Your task to perform on an android device: delete browsing data in the chrome app Image 0: 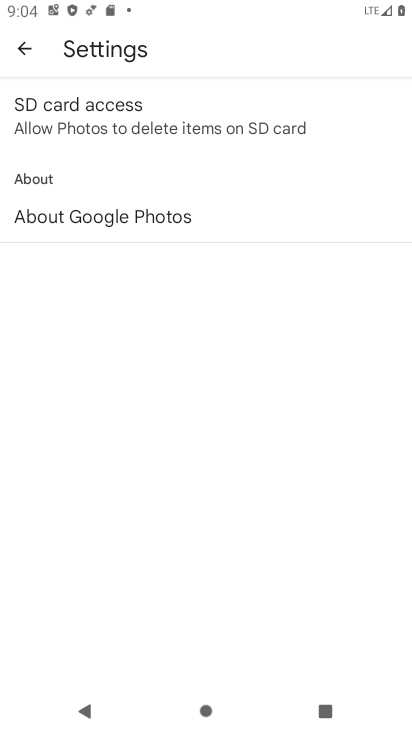
Step 0: press home button
Your task to perform on an android device: delete browsing data in the chrome app Image 1: 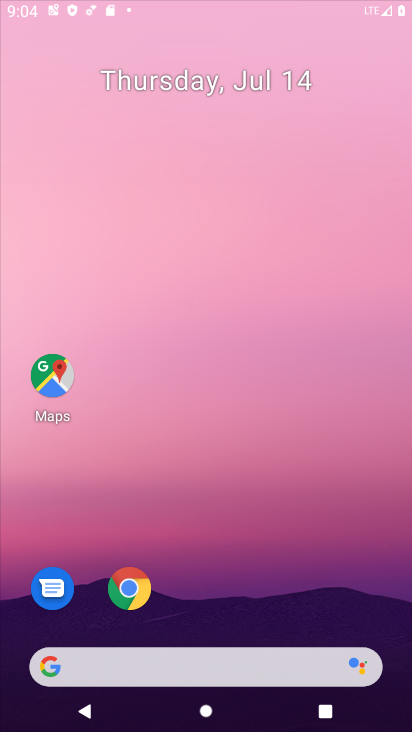
Step 1: drag from (381, 692) to (153, 25)
Your task to perform on an android device: delete browsing data in the chrome app Image 2: 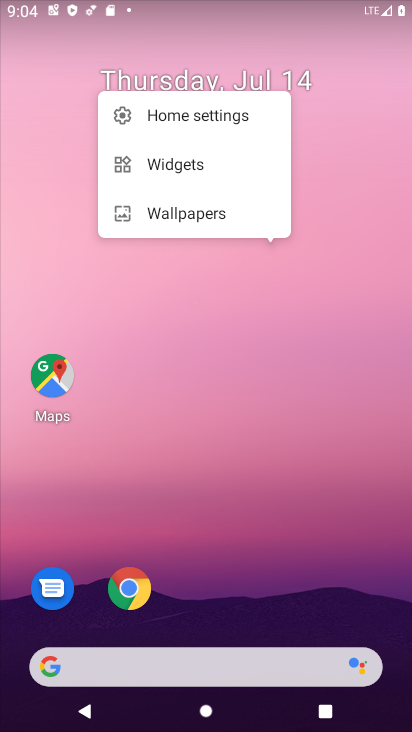
Step 2: click (187, 359)
Your task to perform on an android device: delete browsing data in the chrome app Image 3: 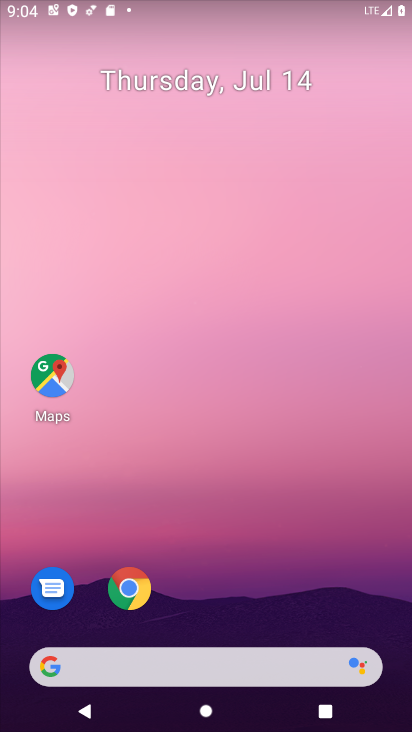
Step 3: drag from (397, 683) to (256, 18)
Your task to perform on an android device: delete browsing data in the chrome app Image 4: 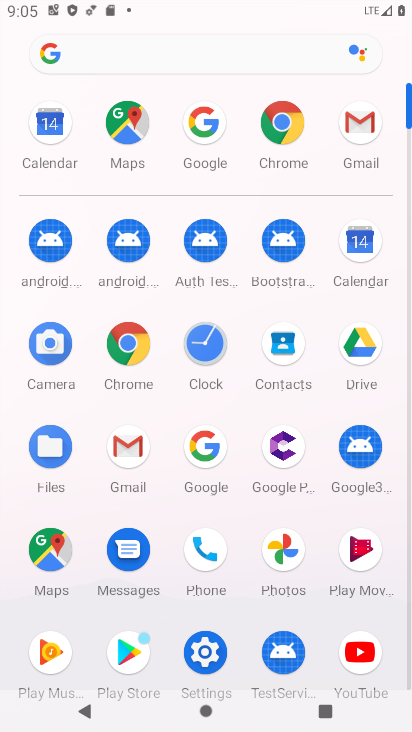
Step 4: click (267, 118)
Your task to perform on an android device: delete browsing data in the chrome app Image 5: 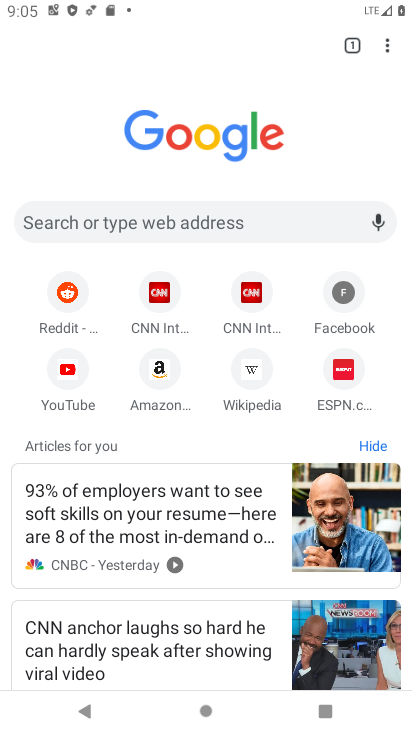
Step 5: click (379, 42)
Your task to perform on an android device: delete browsing data in the chrome app Image 6: 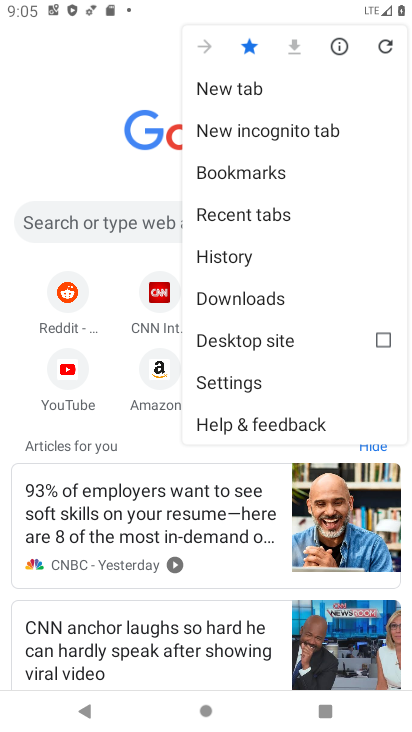
Step 6: click (265, 255)
Your task to perform on an android device: delete browsing data in the chrome app Image 7: 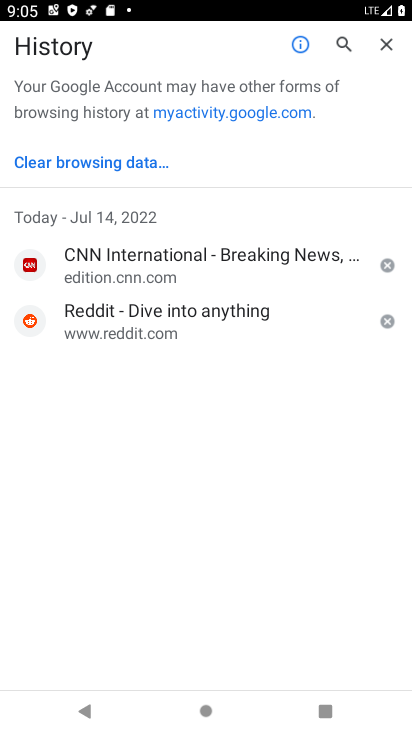
Step 7: click (77, 96)
Your task to perform on an android device: delete browsing data in the chrome app Image 8: 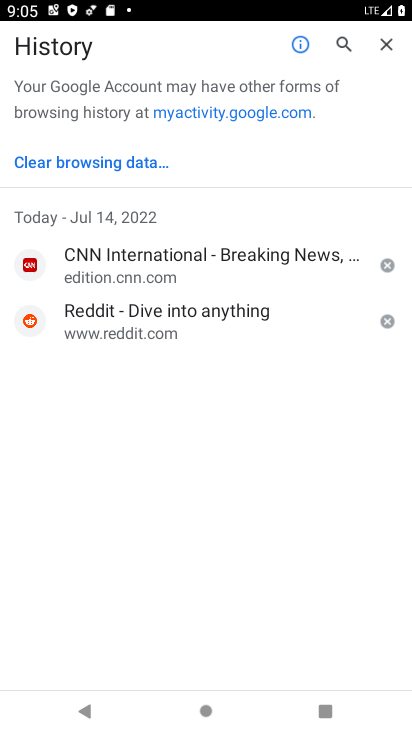
Step 8: click (106, 163)
Your task to perform on an android device: delete browsing data in the chrome app Image 9: 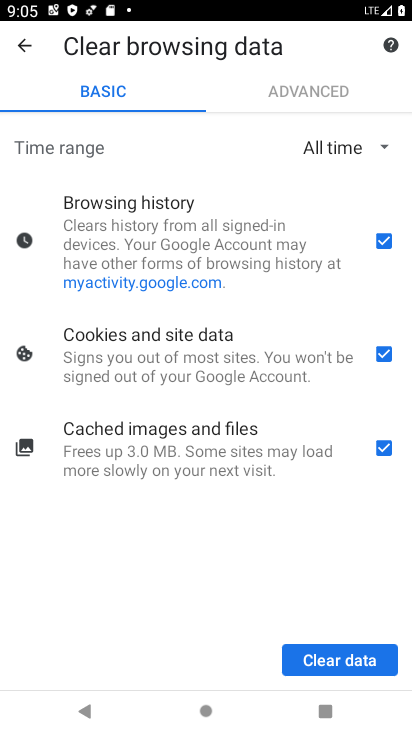
Step 9: click (326, 665)
Your task to perform on an android device: delete browsing data in the chrome app Image 10: 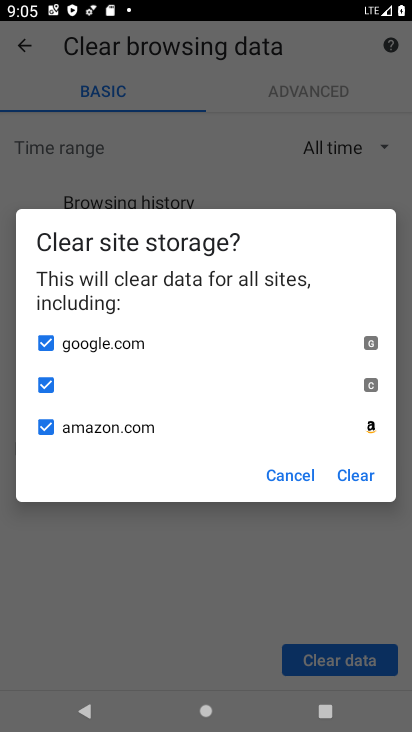
Step 10: click (363, 470)
Your task to perform on an android device: delete browsing data in the chrome app Image 11: 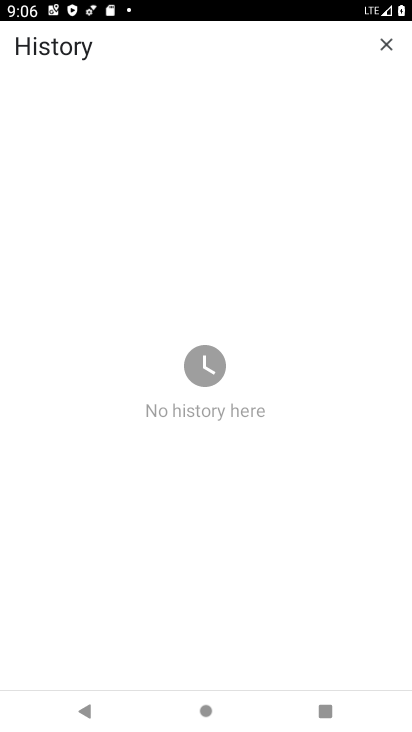
Step 11: task complete